Your task to perform on an android device: read, delete, or share a saved page in the chrome app Image 0: 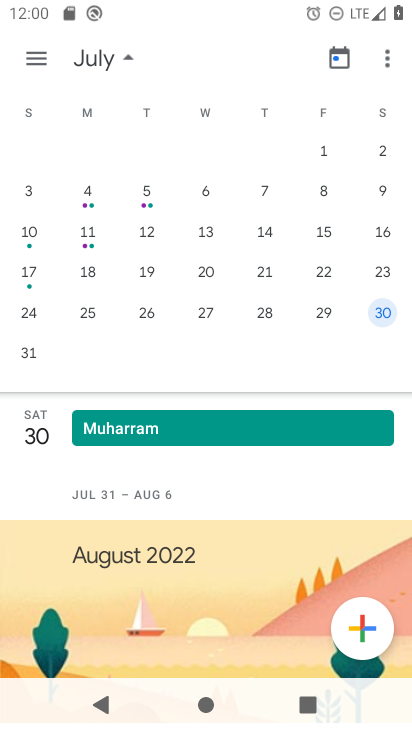
Step 0: press home button
Your task to perform on an android device: read, delete, or share a saved page in the chrome app Image 1: 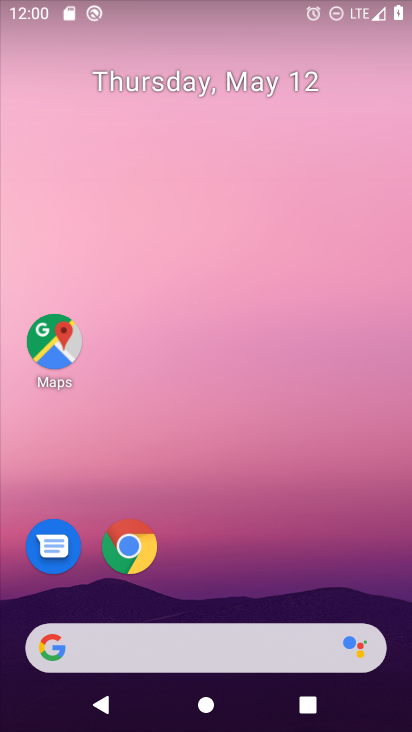
Step 1: drag from (404, 649) to (310, 41)
Your task to perform on an android device: read, delete, or share a saved page in the chrome app Image 2: 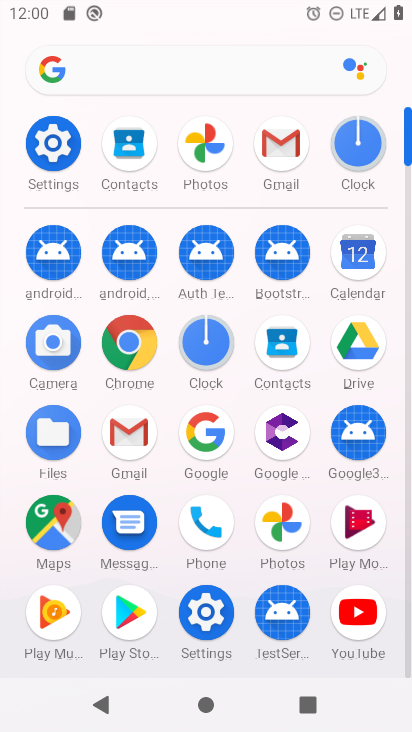
Step 2: click (136, 346)
Your task to perform on an android device: read, delete, or share a saved page in the chrome app Image 3: 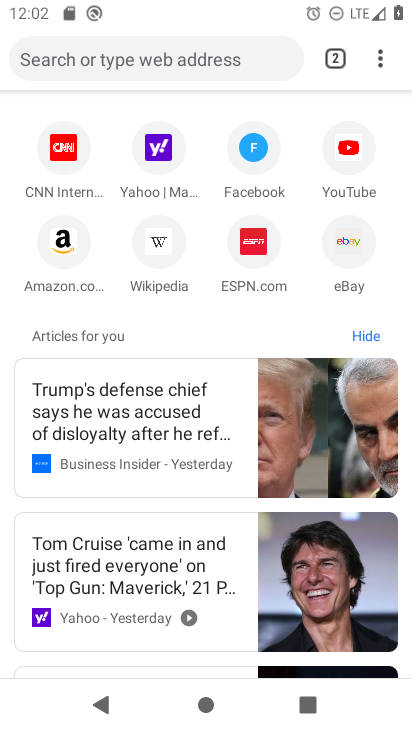
Step 3: task complete